Your task to perform on an android device: turn on airplane mode Image 0: 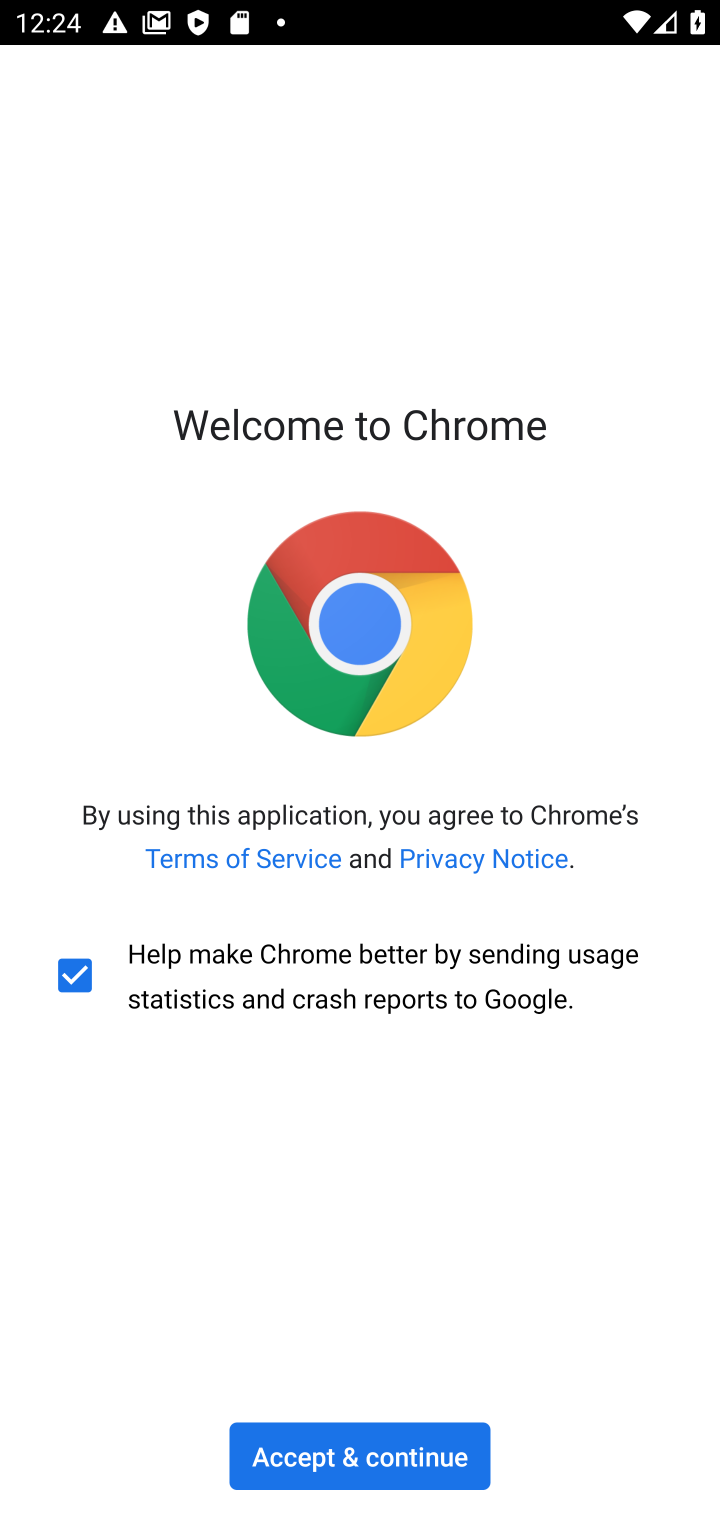
Step 0: press home button
Your task to perform on an android device: turn on airplane mode Image 1: 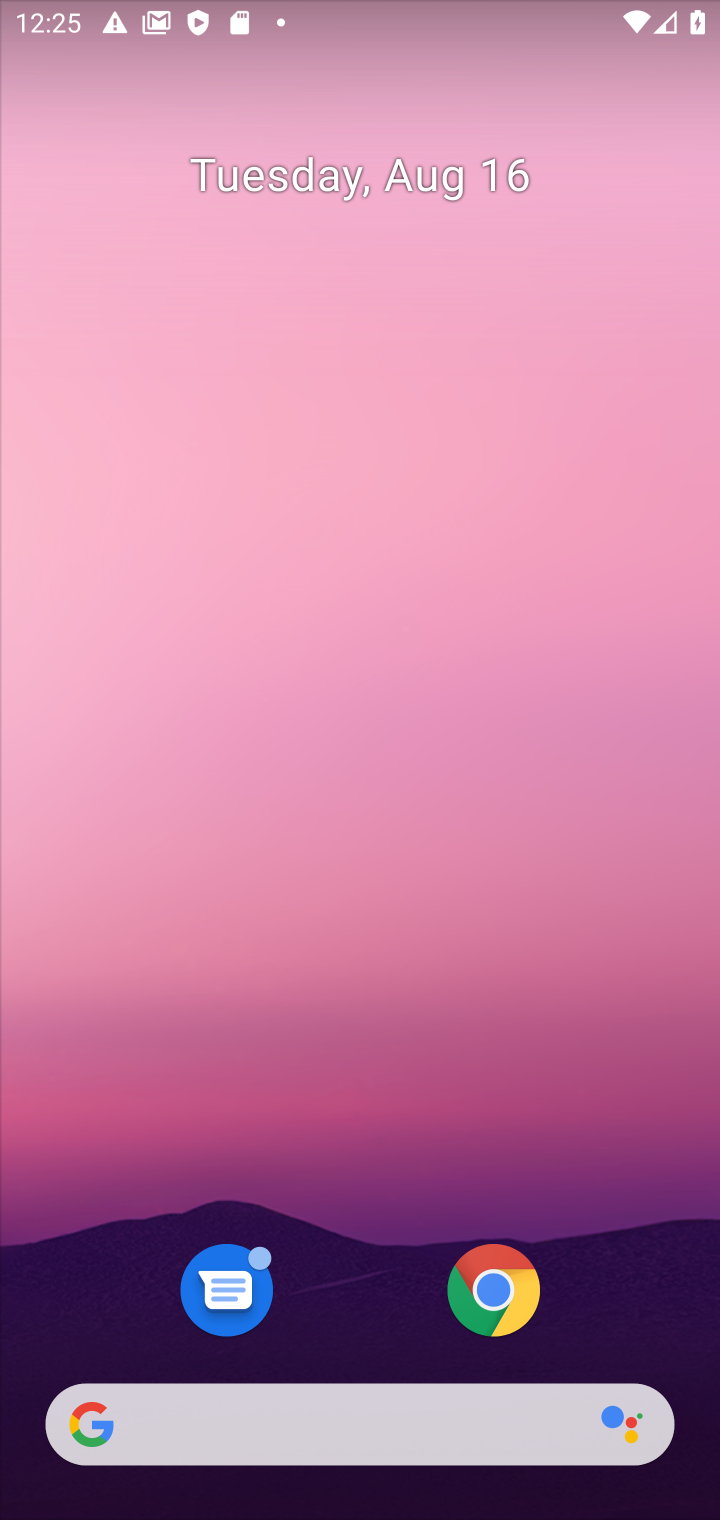
Step 1: drag from (369, 1329) to (386, 186)
Your task to perform on an android device: turn on airplane mode Image 2: 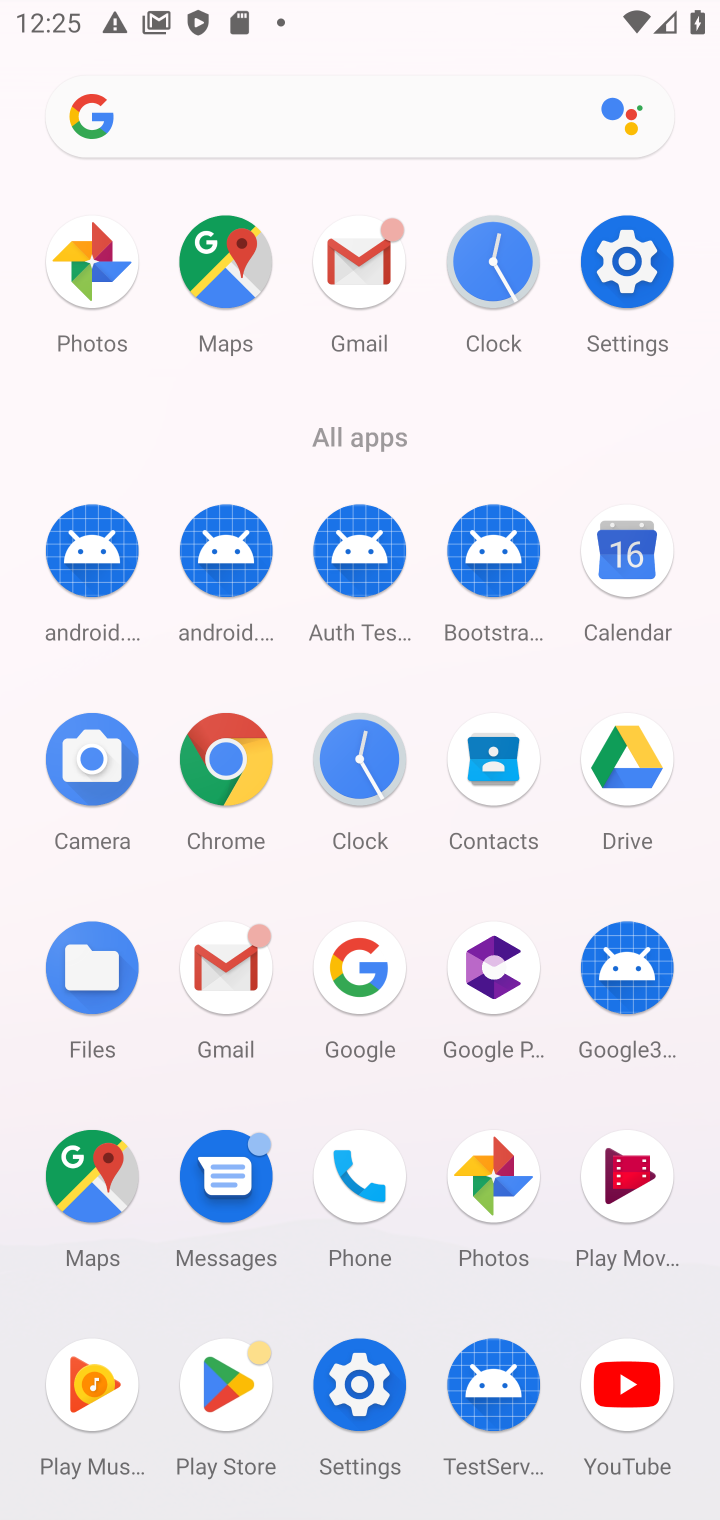
Step 2: click (625, 243)
Your task to perform on an android device: turn on airplane mode Image 3: 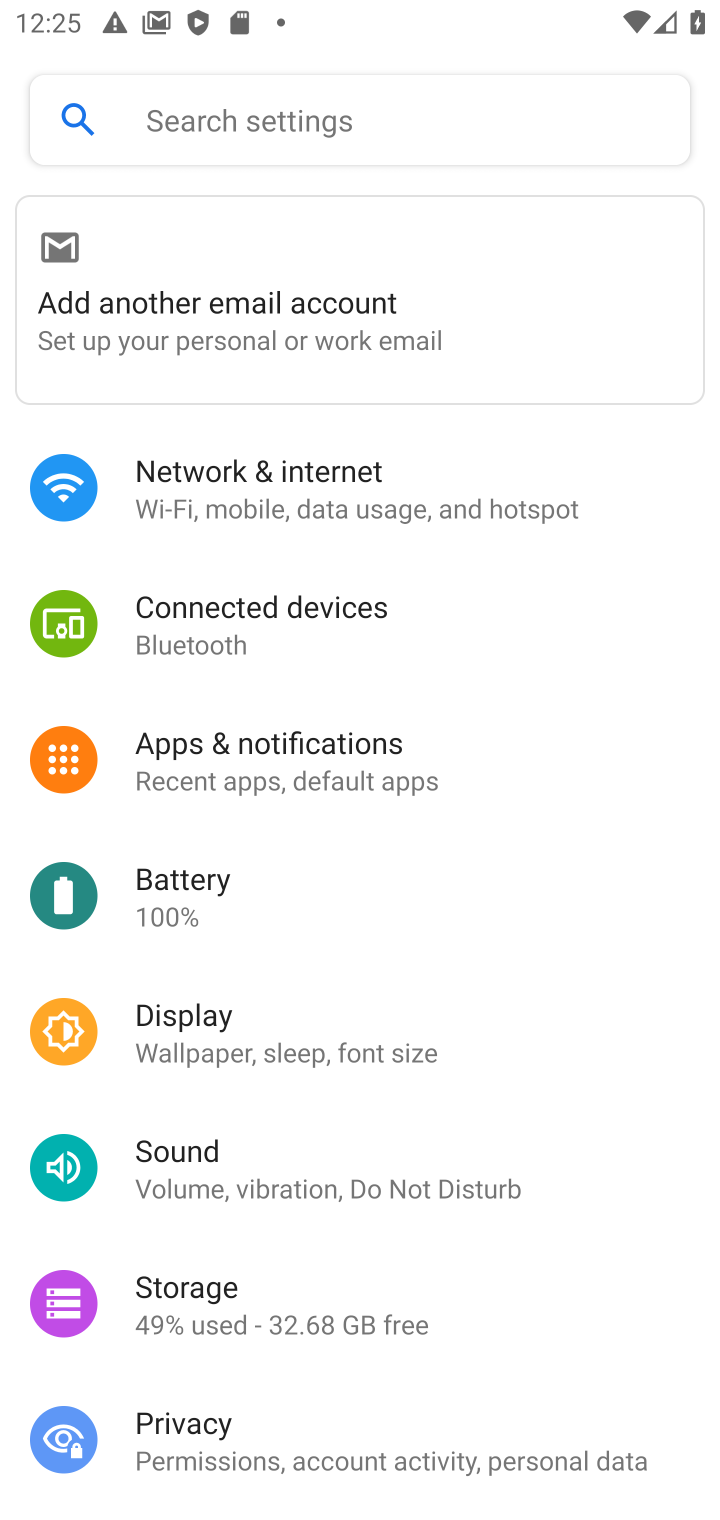
Step 3: click (399, 475)
Your task to perform on an android device: turn on airplane mode Image 4: 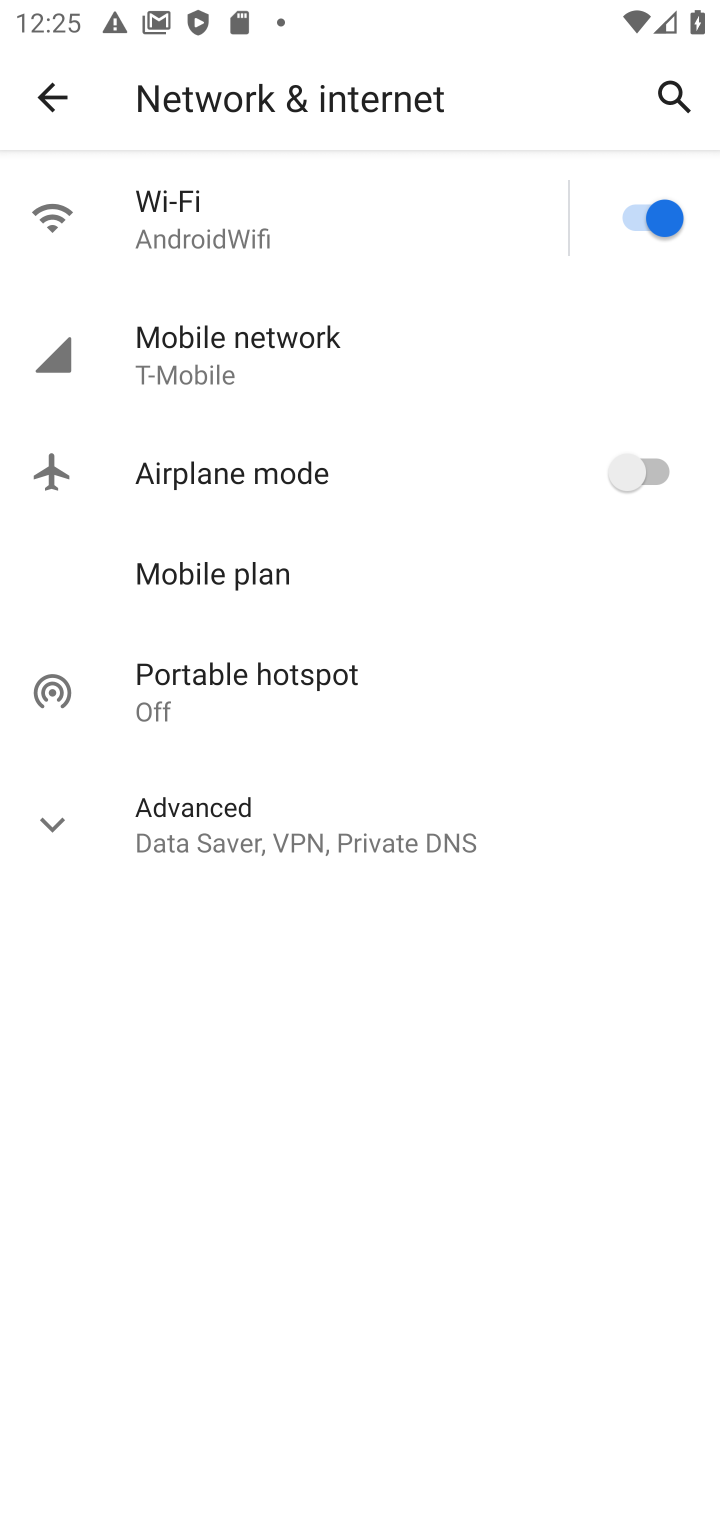
Step 4: click (631, 478)
Your task to perform on an android device: turn on airplane mode Image 5: 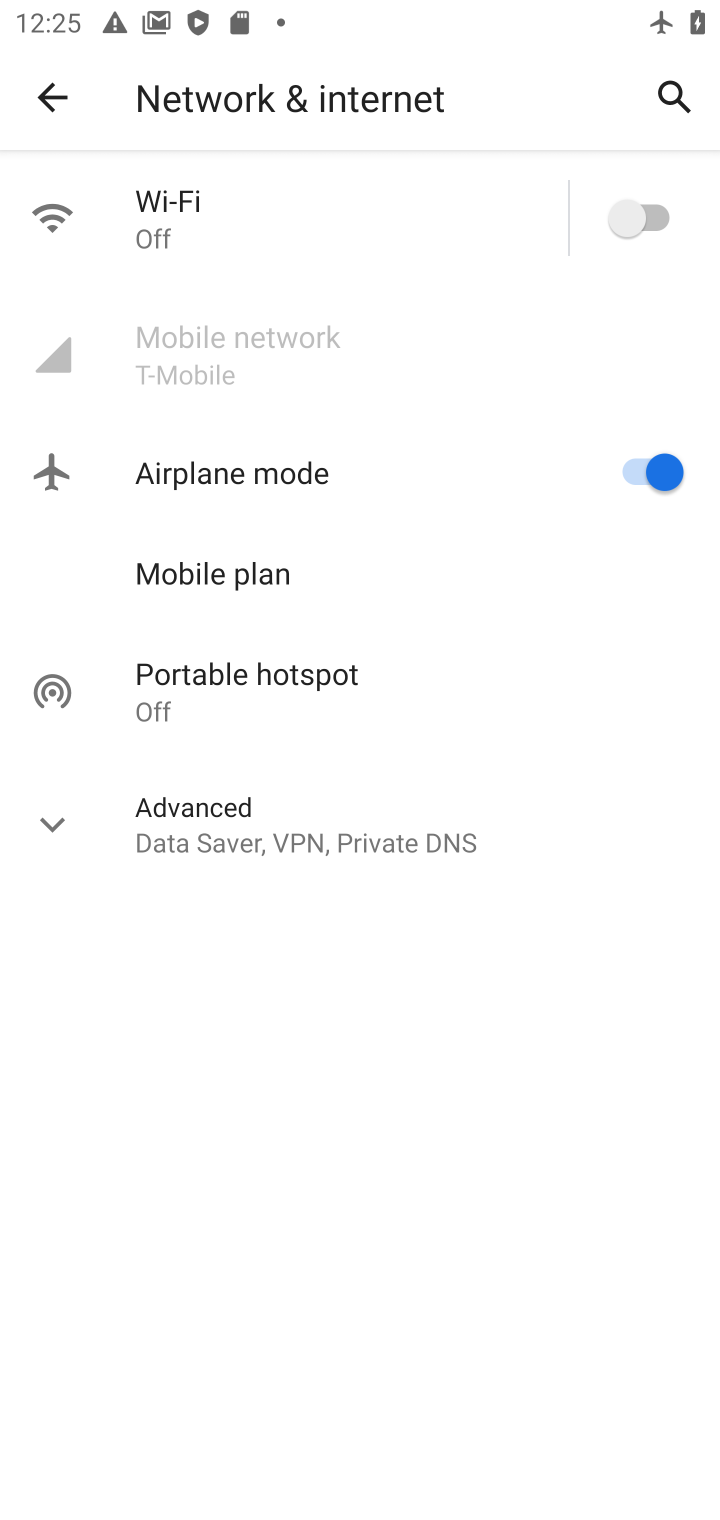
Step 5: task complete